Your task to perform on an android device: Go to ESPN.com Image 0: 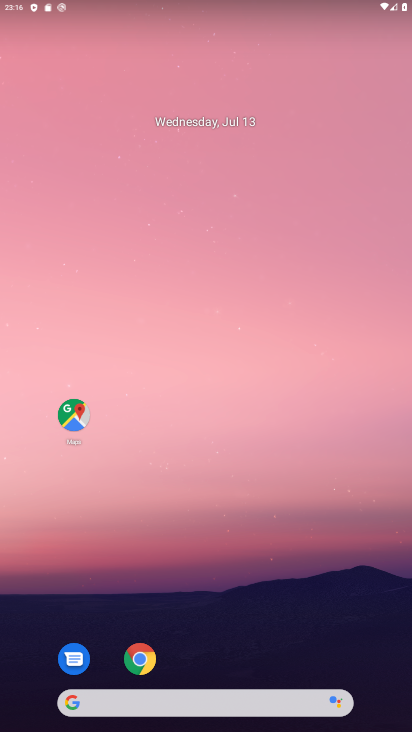
Step 0: click (140, 652)
Your task to perform on an android device: Go to ESPN.com Image 1: 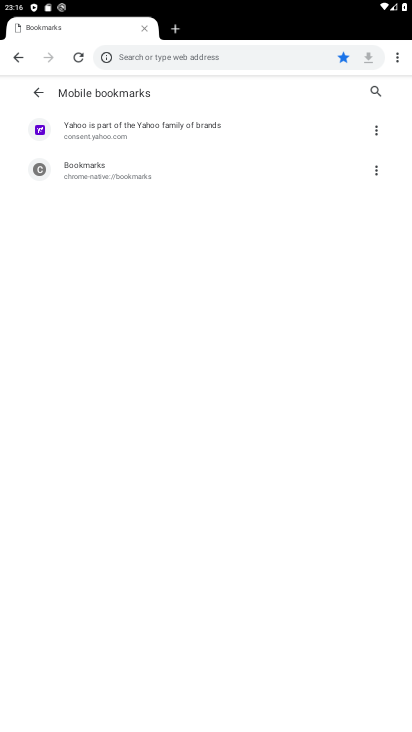
Step 1: click (204, 49)
Your task to perform on an android device: Go to ESPN.com Image 2: 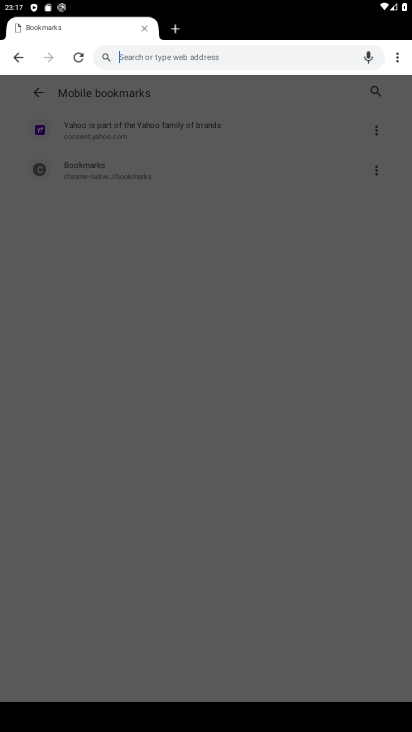
Step 2: type "ESPN.com"
Your task to perform on an android device: Go to ESPN.com Image 3: 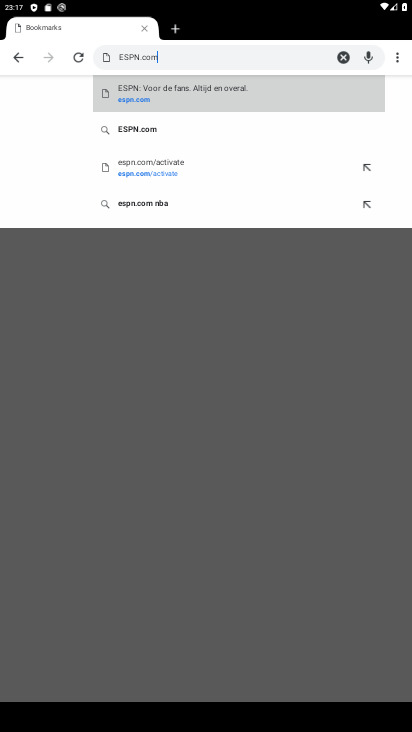
Step 3: click (143, 106)
Your task to perform on an android device: Go to ESPN.com Image 4: 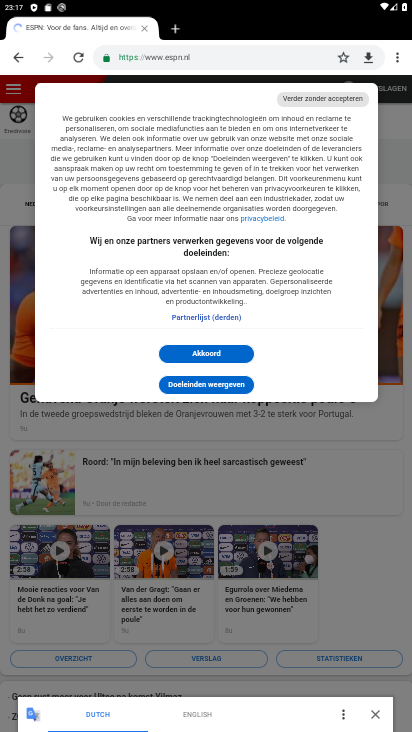
Step 4: click (205, 353)
Your task to perform on an android device: Go to ESPN.com Image 5: 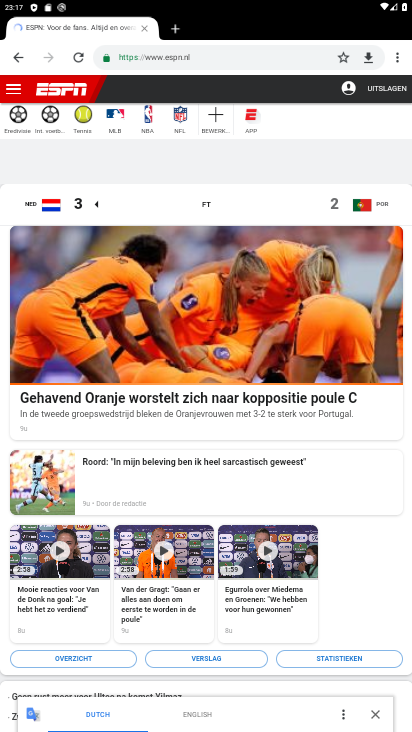
Step 5: task complete